Your task to perform on an android device: open chrome and create a bookmark for the current page Image 0: 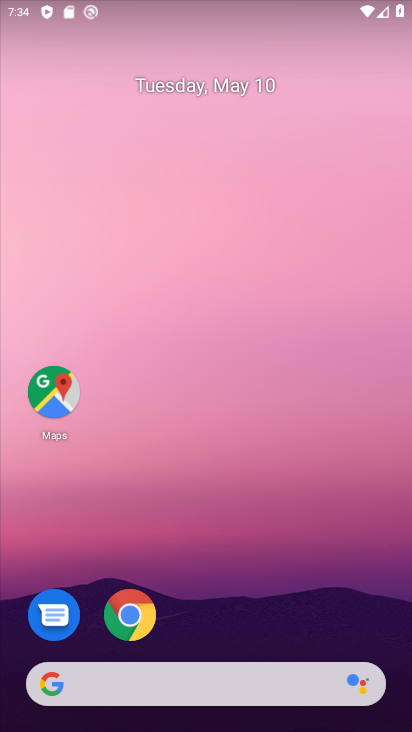
Step 0: drag from (188, 634) to (240, 238)
Your task to perform on an android device: open chrome and create a bookmark for the current page Image 1: 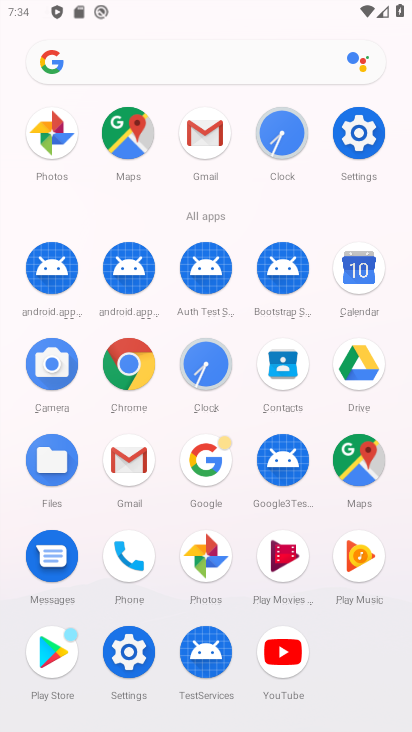
Step 1: click (129, 366)
Your task to perform on an android device: open chrome and create a bookmark for the current page Image 2: 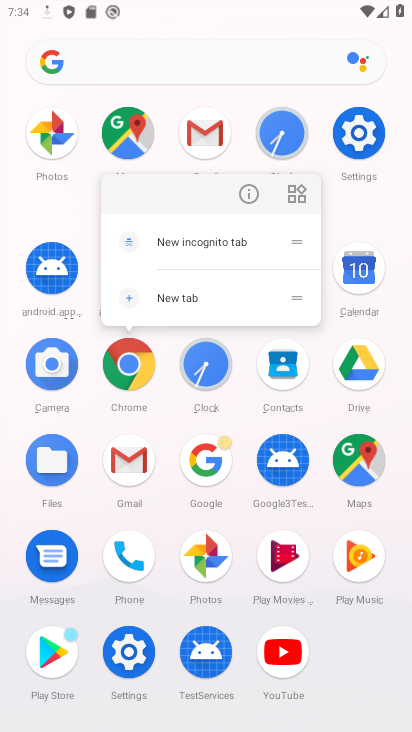
Step 2: click (251, 189)
Your task to perform on an android device: open chrome and create a bookmark for the current page Image 3: 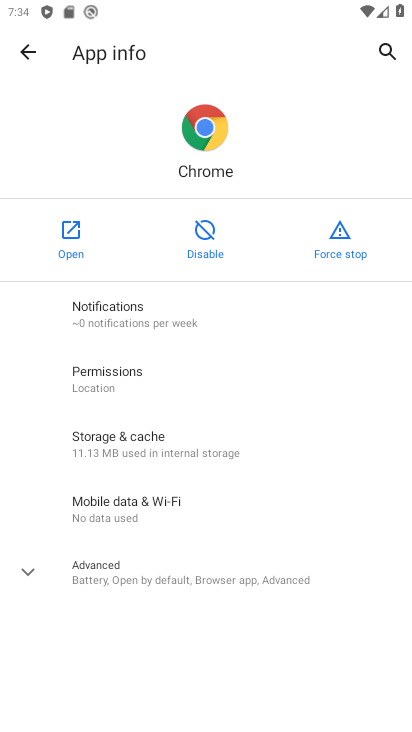
Step 3: click (72, 223)
Your task to perform on an android device: open chrome and create a bookmark for the current page Image 4: 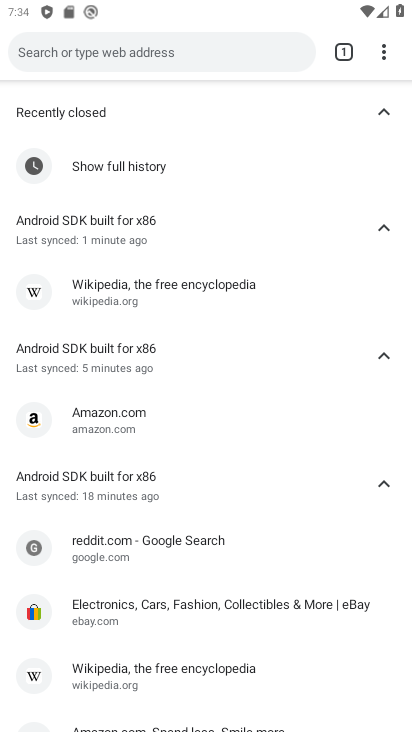
Step 4: drag from (391, 45) to (67, 110)
Your task to perform on an android device: open chrome and create a bookmark for the current page Image 5: 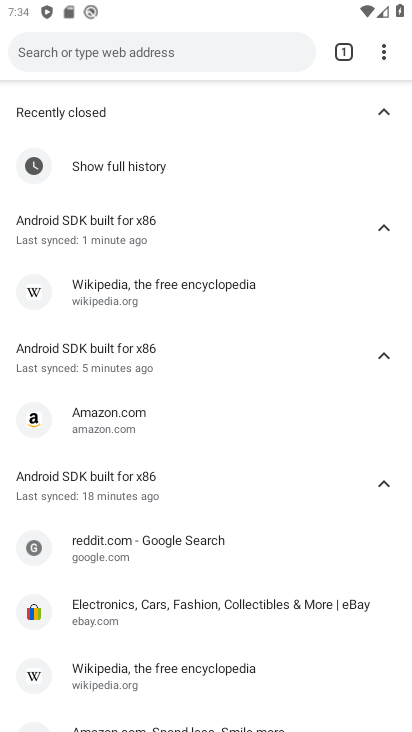
Step 5: click (240, 59)
Your task to perform on an android device: open chrome and create a bookmark for the current page Image 6: 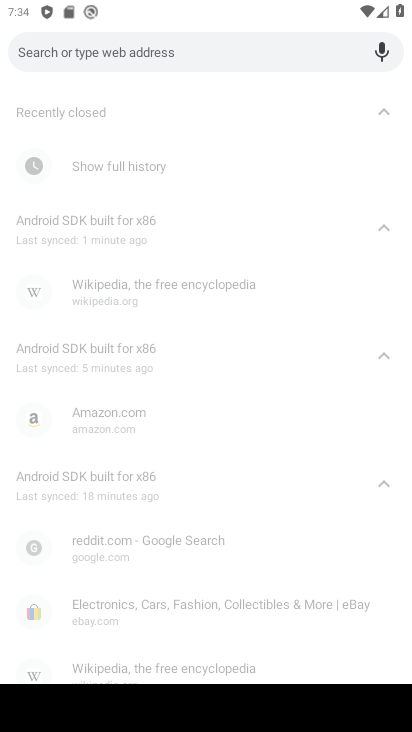
Step 6: click (211, 201)
Your task to perform on an android device: open chrome and create a bookmark for the current page Image 7: 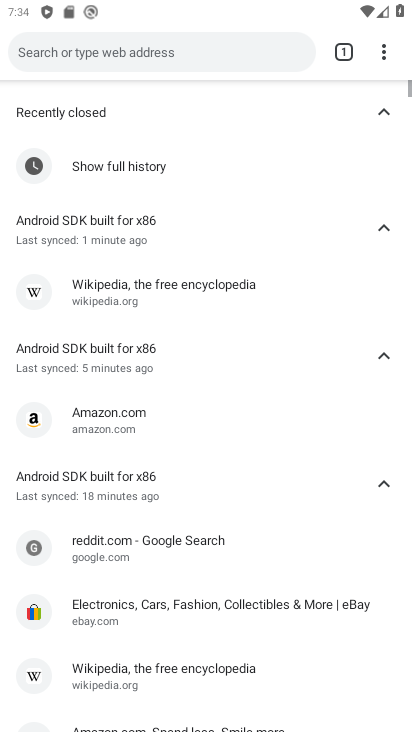
Step 7: click (108, 307)
Your task to perform on an android device: open chrome and create a bookmark for the current page Image 8: 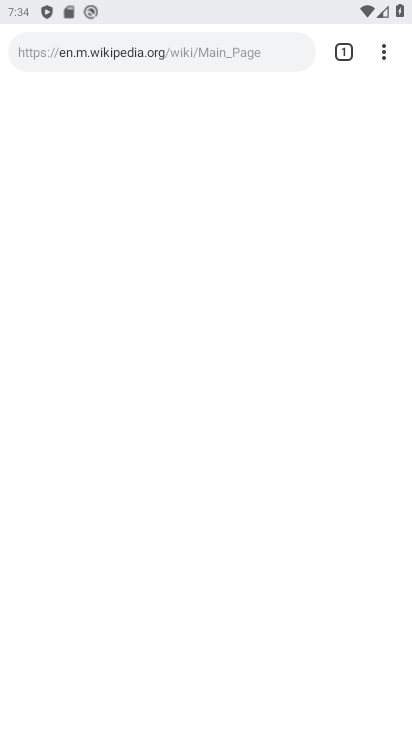
Step 8: click (388, 54)
Your task to perform on an android device: open chrome and create a bookmark for the current page Image 9: 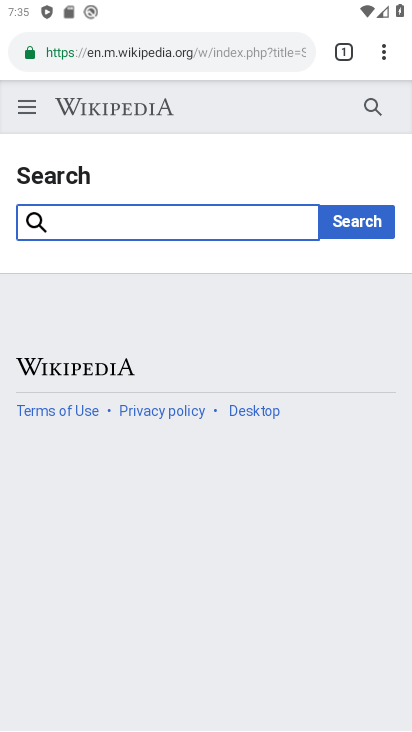
Step 9: click (375, 43)
Your task to perform on an android device: open chrome and create a bookmark for the current page Image 10: 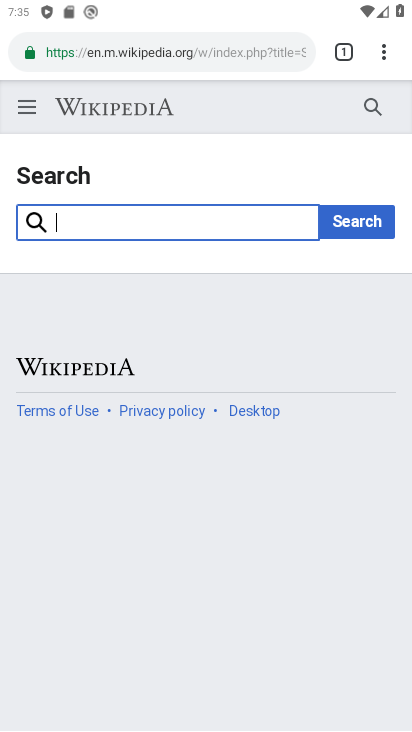
Step 10: task complete